Your task to perform on an android device: install app "Indeed Job Search" Image 0: 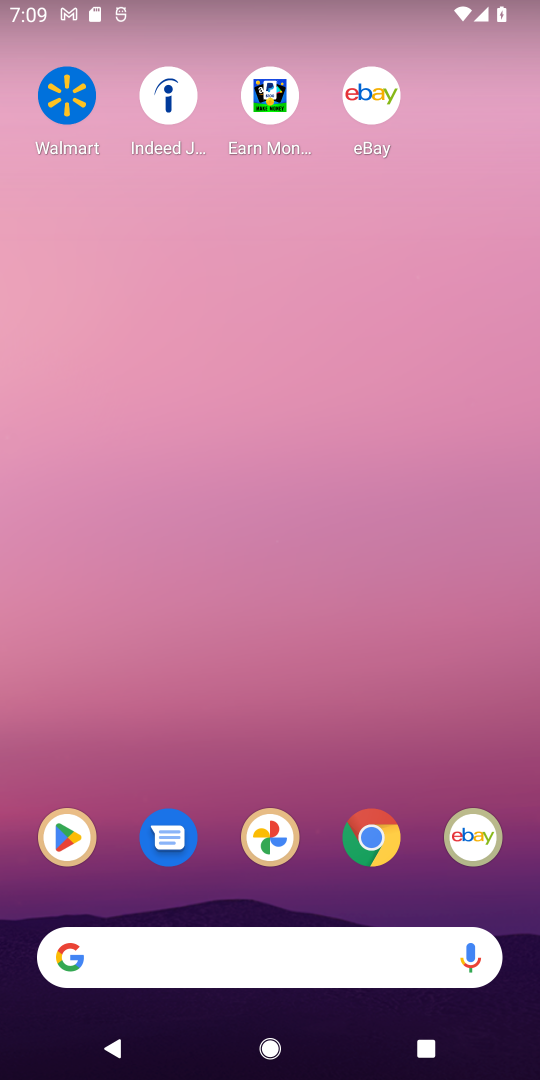
Step 0: press home button
Your task to perform on an android device: install app "Indeed Job Search" Image 1: 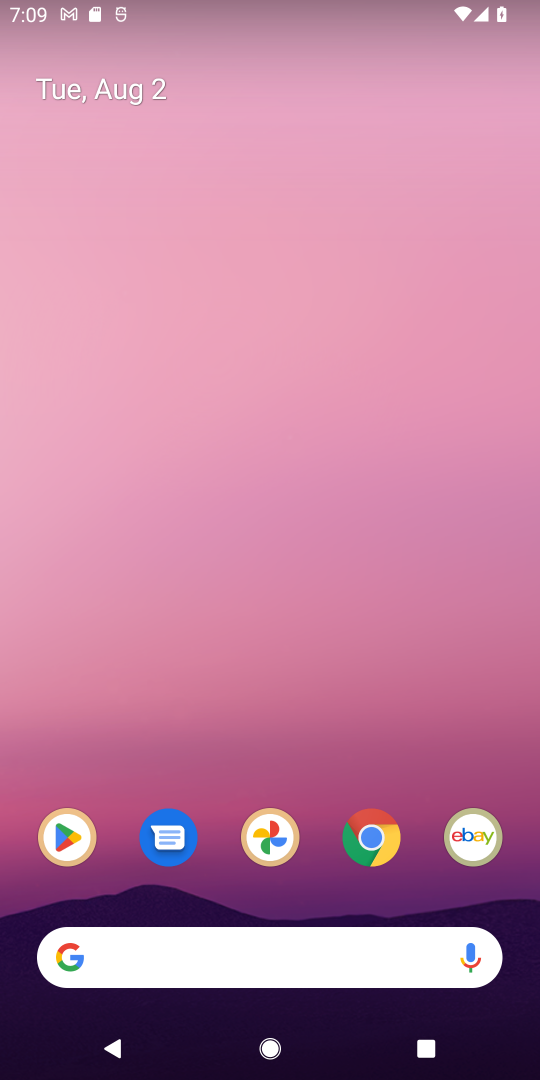
Step 1: click (56, 835)
Your task to perform on an android device: install app "Indeed Job Search" Image 2: 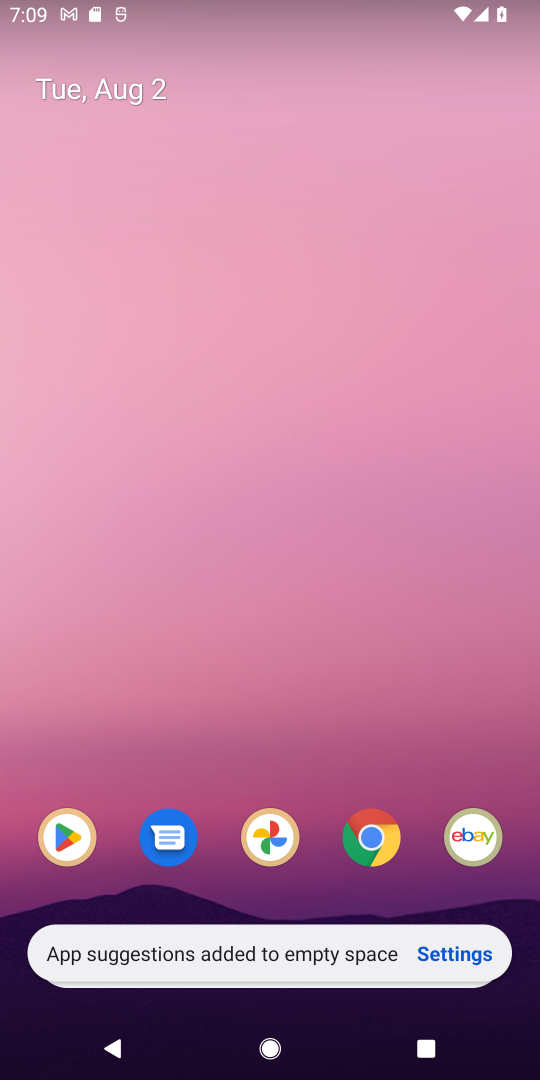
Step 2: click (74, 837)
Your task to perform on an android device: install app "Indeed Job Search" Image 3: 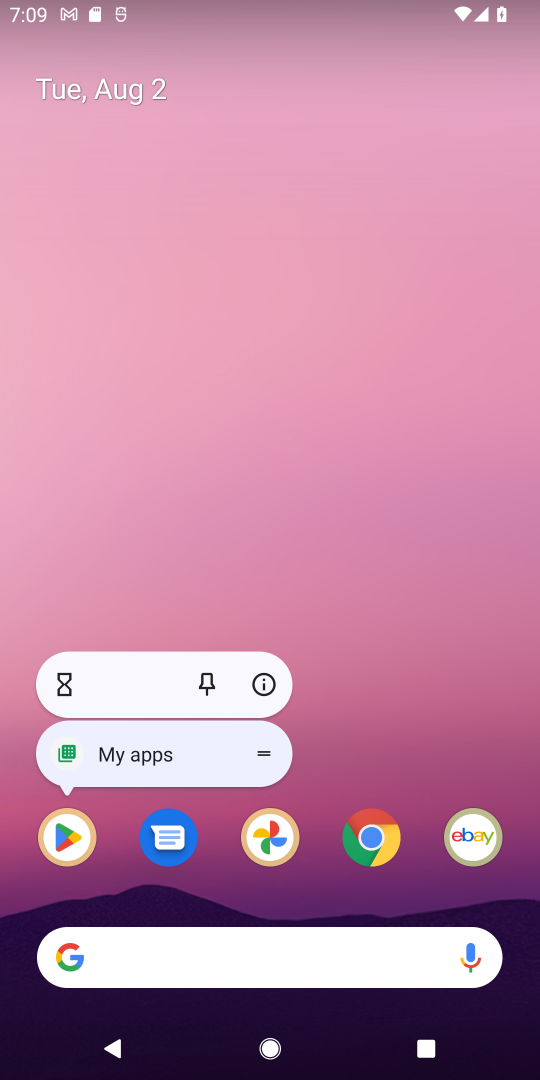
Step 3: click (263, 689)
Your task to perform on an android device: install app "Indeed Job Search" Image 4: 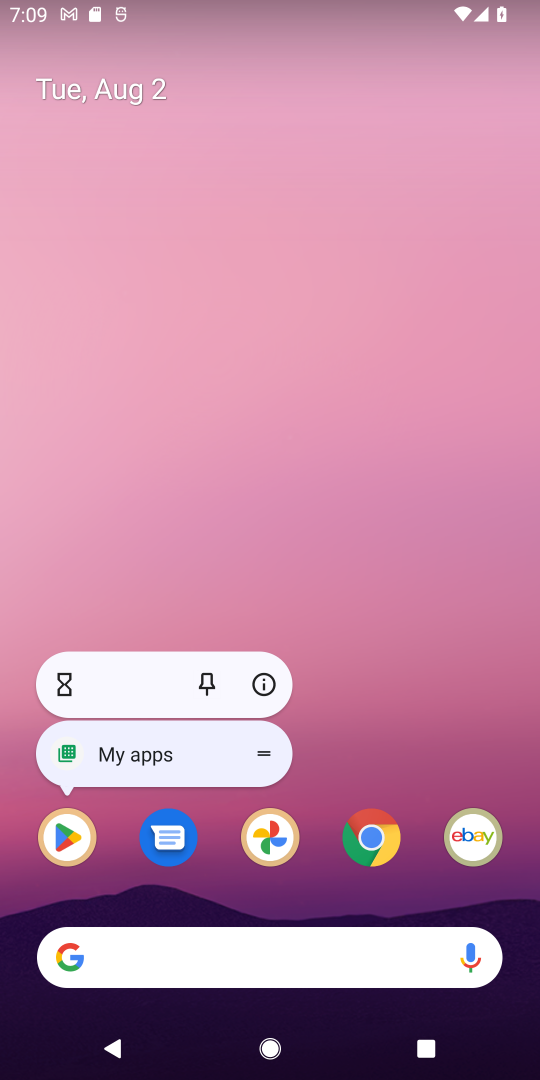
Step 4: click (257, 691)
Your task to perform on an android device: install app "Indeed Job Search" Image 5: 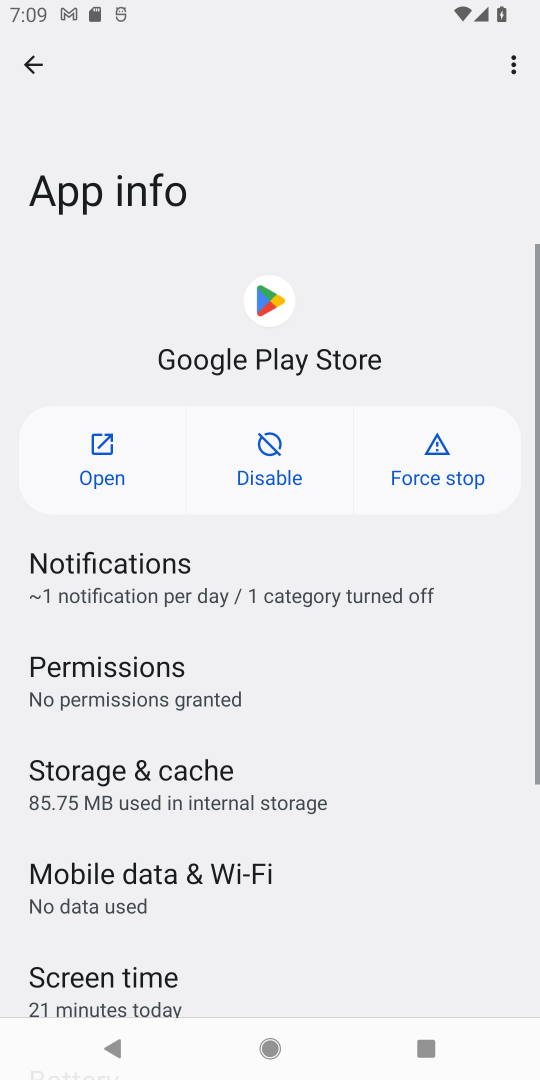
Step 5: click (90, 457)
Your task to perform on an android device: install app "Indeed Job Search" Image 6: 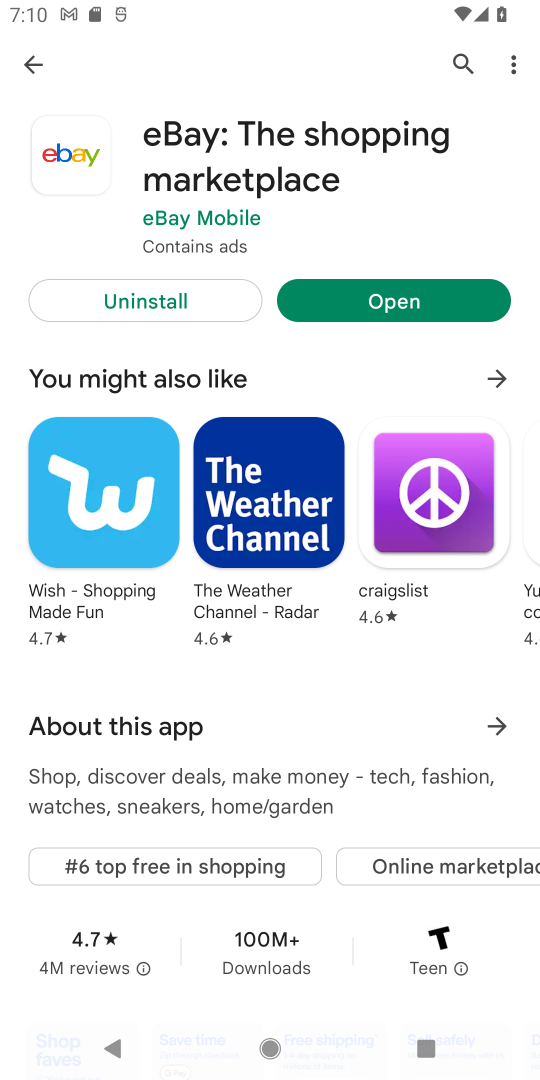
Step 6: click (439, 56)
Your task to perform on an android device: install app "Indeed Job Search" Image 7: 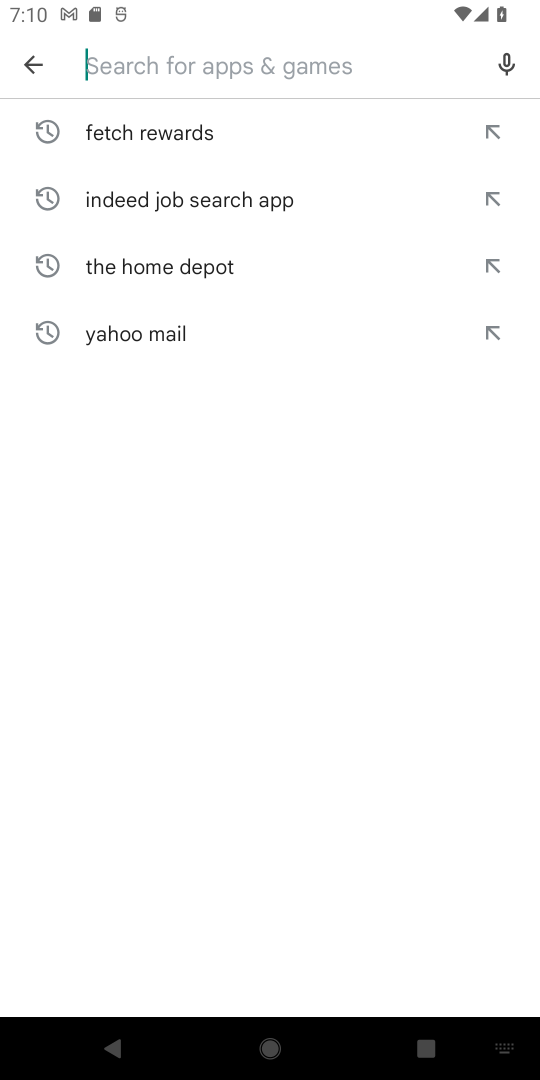
Step 7: type "Indeed Job Search"
Your task to perform on an android device: install app "Indeed Job Search" Image 8: 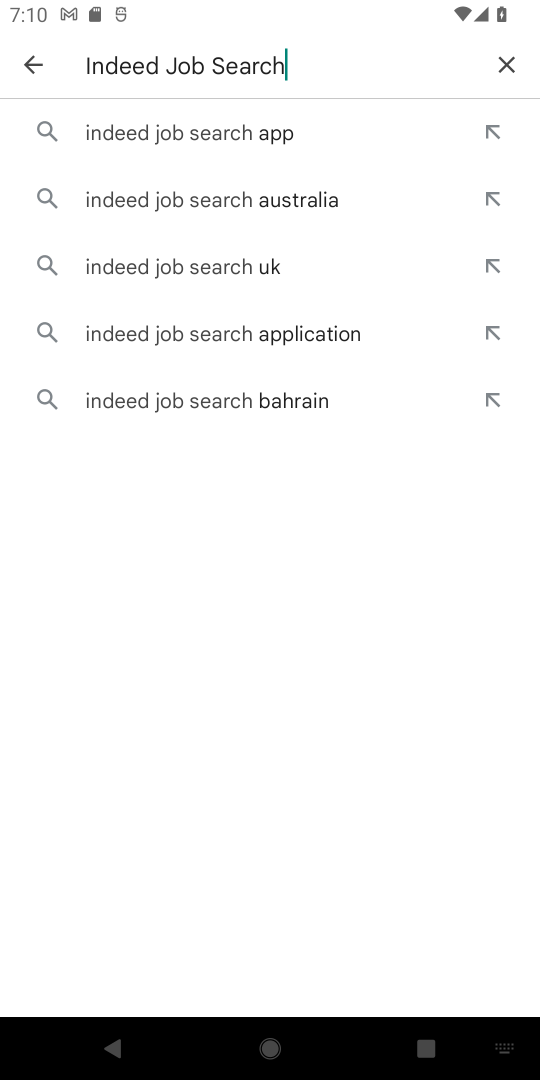
Step 8: click (162, 135)
Your task to perform on an android device: install app "Indeed Job Search" Image 9: 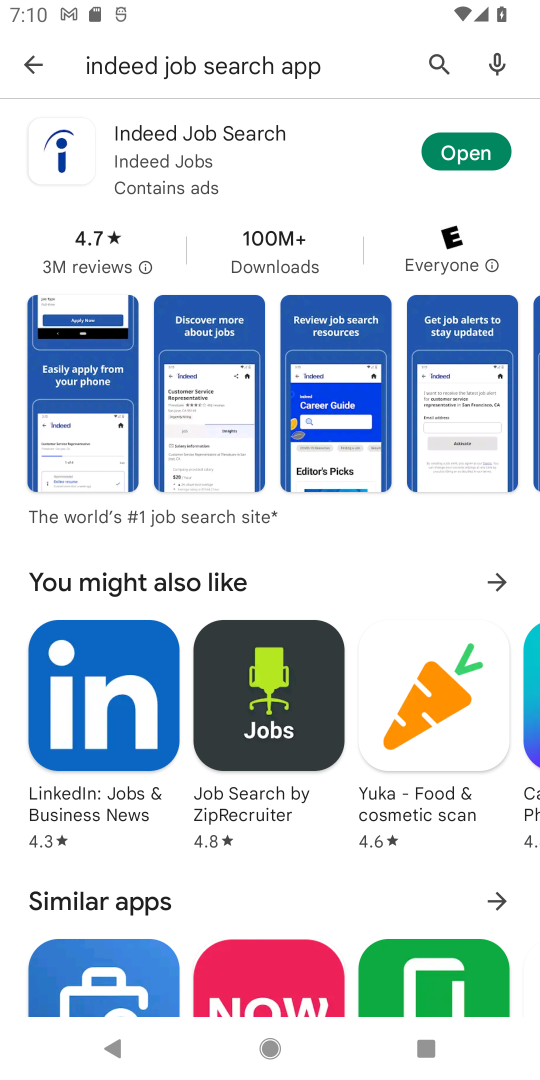
Step 9: click (204, 141)
Your task to perform on an android device: install app "Indeed Job Search" Image 10: 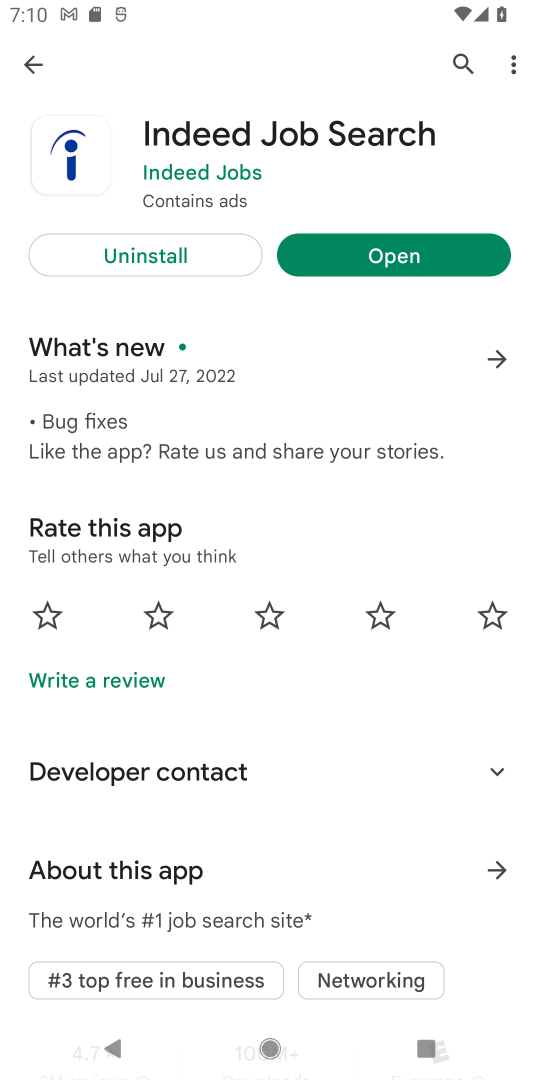
Step 10: task complete